Your task to perform on an android device: Open Google Chrome and open the bookmarks view Image 0: 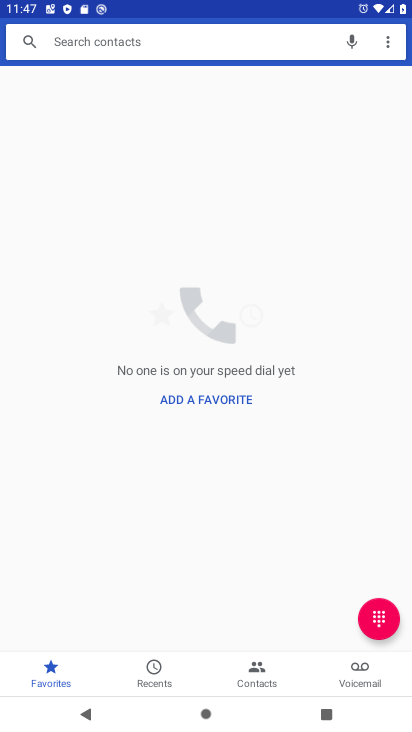
Step 0: press home button
Your task to perform on an android device: Open Google Chrome and open the bookmarks view Image 1: 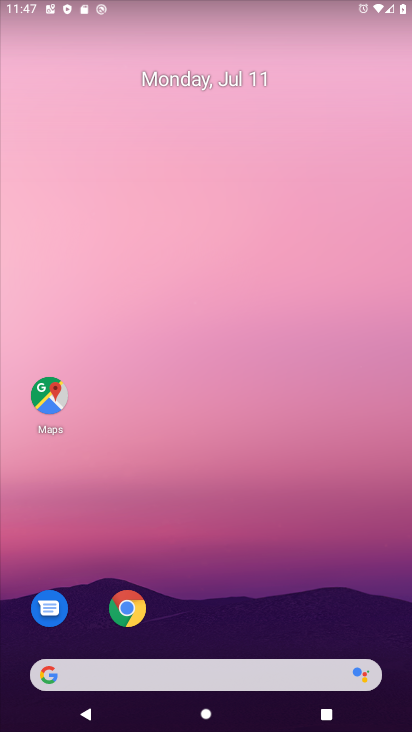
Step 1: click (135, 602)
Your task to perform on an android device: Open Google Chrome and open the bookmarks view Image 2: 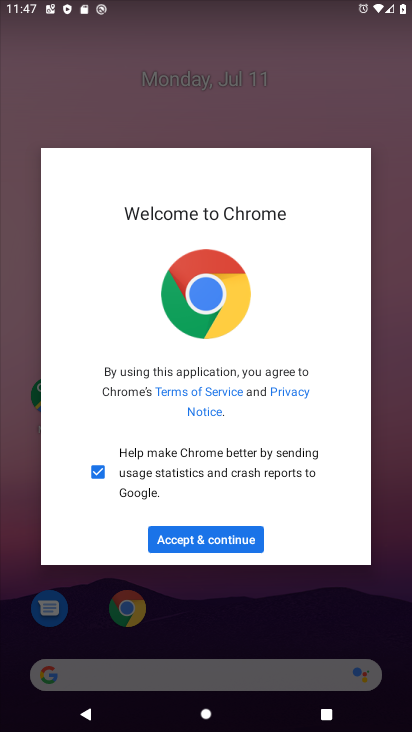
Step 2: click (212, 540)
Your task to perform on an android device: Open Google Chrome and open the bookmarks view Image 3: 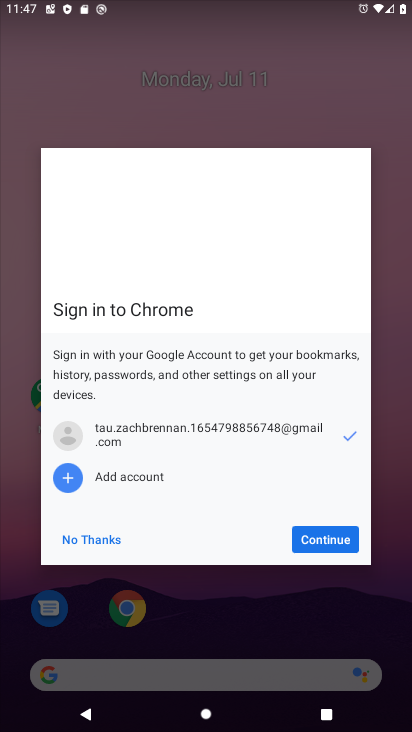
Step 3: click (324, 543)
Your task to perform on an android device: Open Google Chrome and open the bookmarks view Image 4: 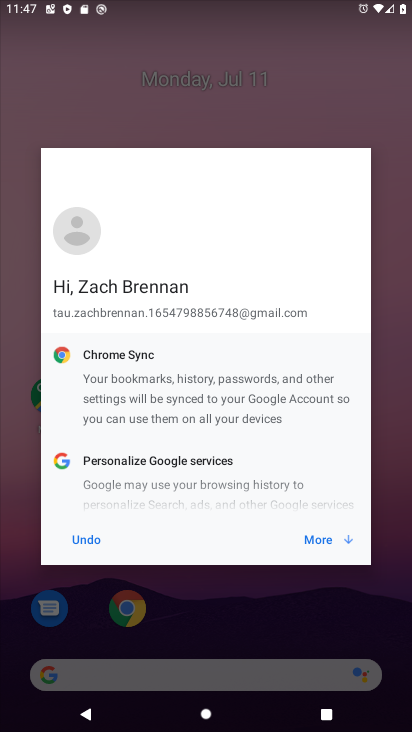
Step 4: click (324, 543)
Your task to perform on an android device: Open Google Chrome and open the bookmarks view Image 5: 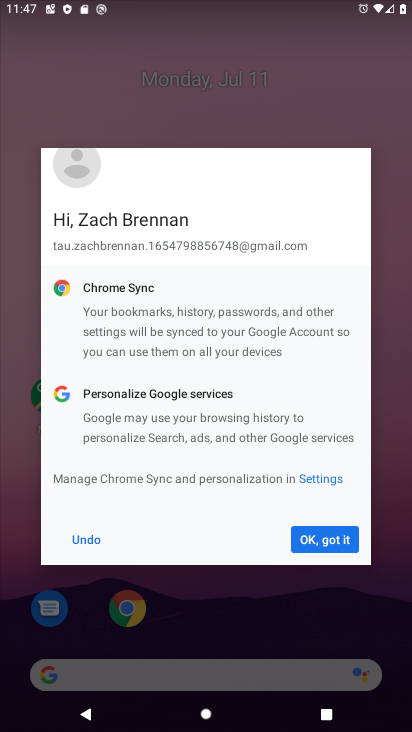
Step 5: click (324, 543)
Your task to perform on an android device: Open Google Chrome and open the bookmarks view Image 6: 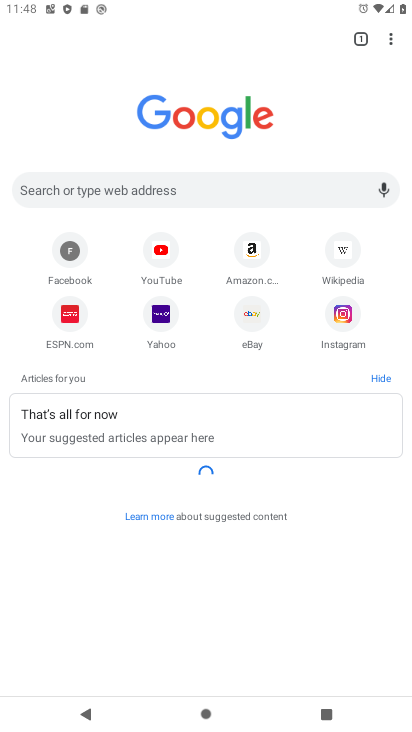
Step 6: click (388, 41)
Your task to perform on an android device: Open Google Chrome and open the bookmarks view Image 7: 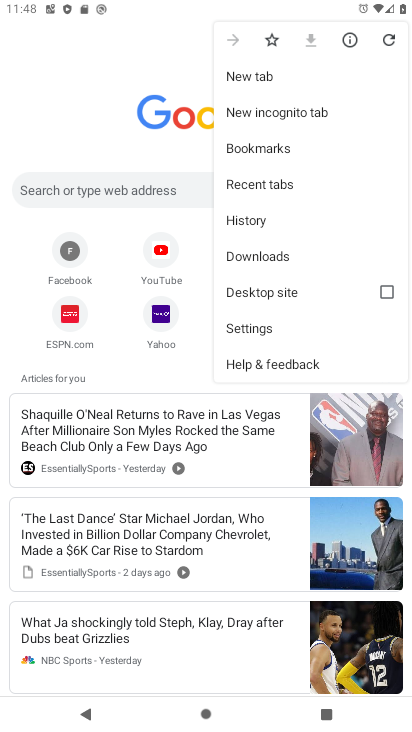
Step 7: click (260, 148)
Your task to perform on an android device: Open Google Chrome and open the bookmarks view Image 8: 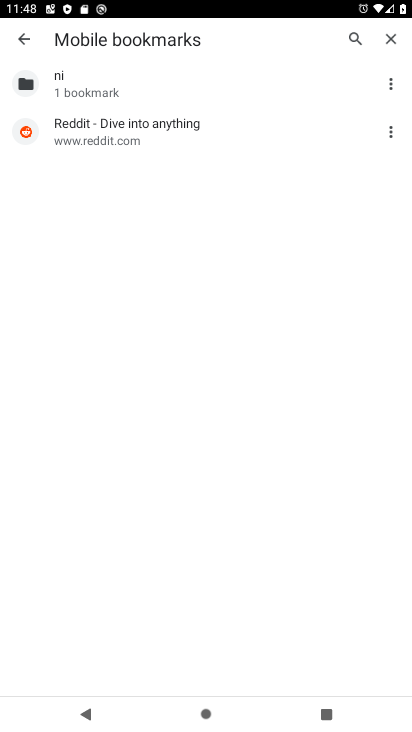
Step 8: task complete